Your task to perform on an android device: Go to CNN.com Image 0: 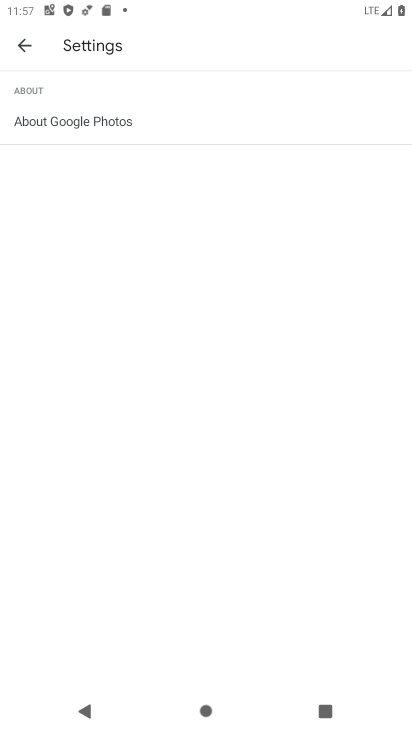
Step 0: press home button
Your task to perform on an android device: Go to CNN.com Image 1: 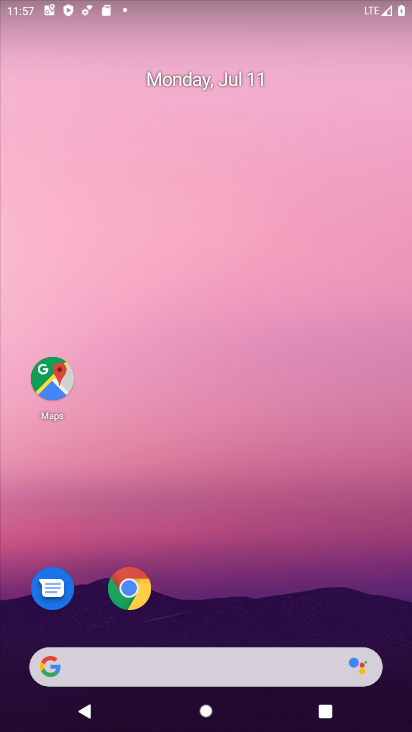
Step 1: drag from (281, 541) to (215, 88)
Your task to perform on an android device: Go to CNN.com Image 2: 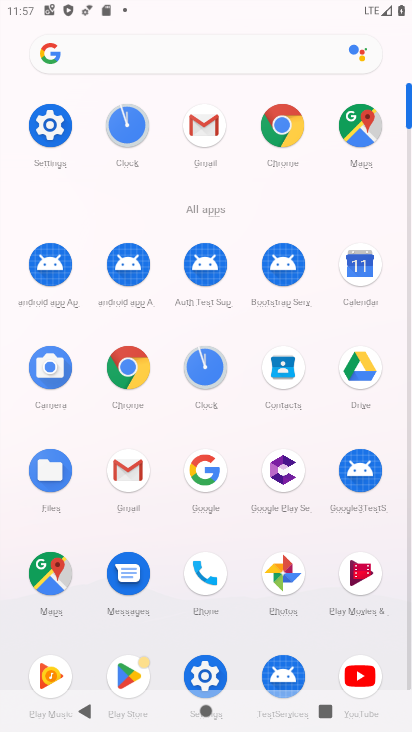
Step 2: click (136, 373)
Your task to perform on an android device: Go to CNN.com Image 3: 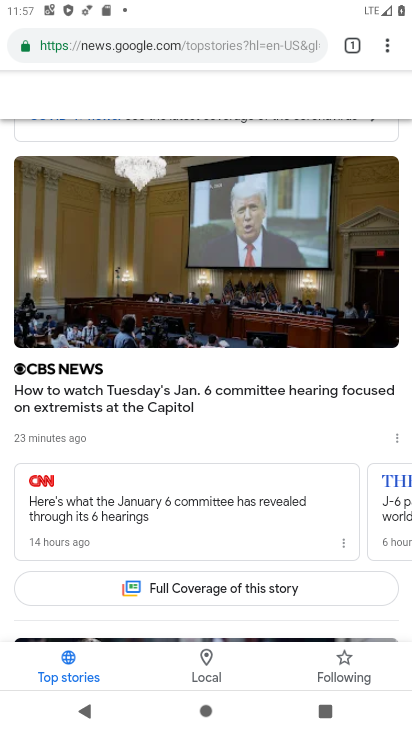
Step 3: click (166, 48)
Your task to perform on an android device: Go to CNN.com Image 4: 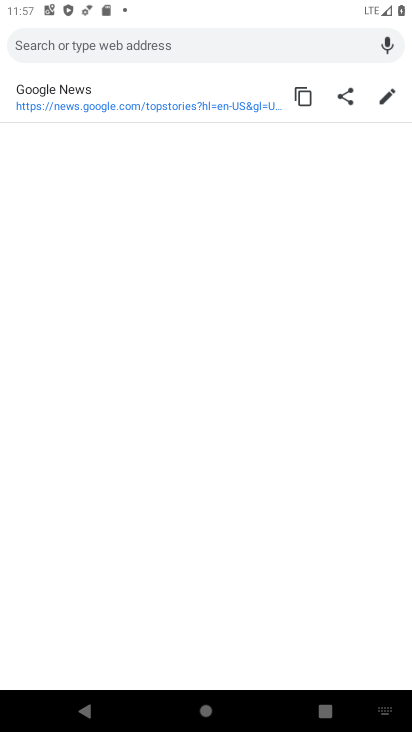
Step 4: type "cnn.com"
Your task to perform on an android device: Go to CNN.com Image 5: 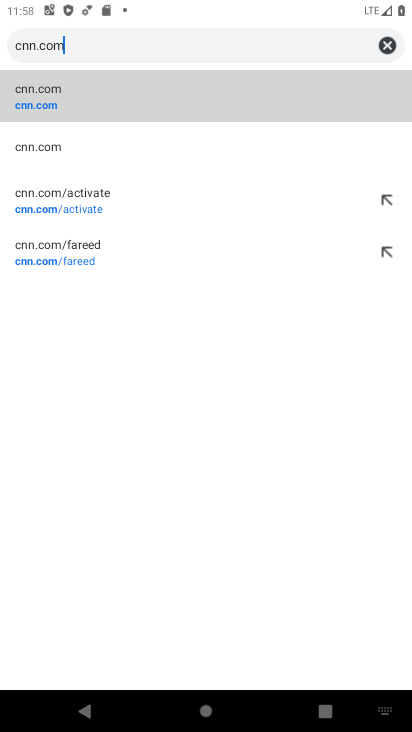
Step 5: click (28, 102)
Your task to perform on an android device: Go to CNN.com Image 6: 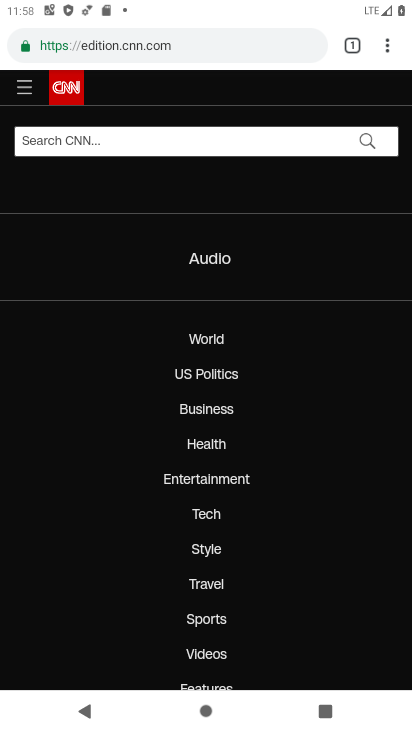
Step 6: task complete